Your task to perform on an android device: add a label to a message in the gmail app Image 0: 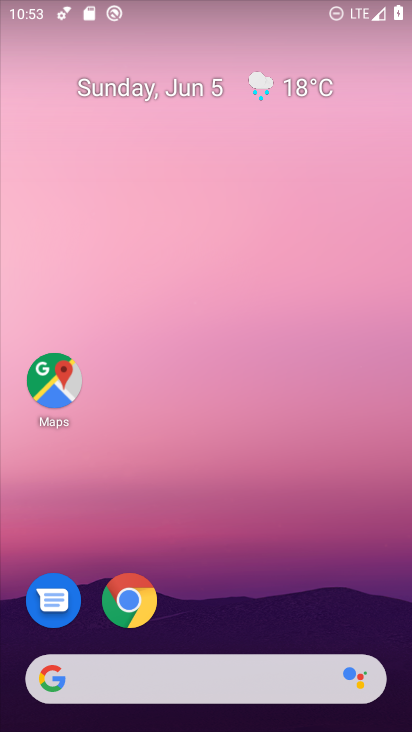
Step 0: drag from (185, 600) to (184, 217)
Your task to perform on an android device: add a label to a message in the gmail app Image 1: 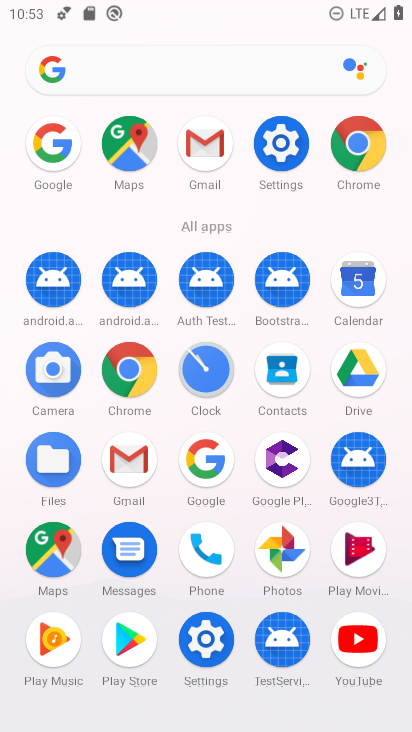
Step 1: click (184, 142)
Your task to perform on an android device: add a label to a message in the gmail app Image 2: 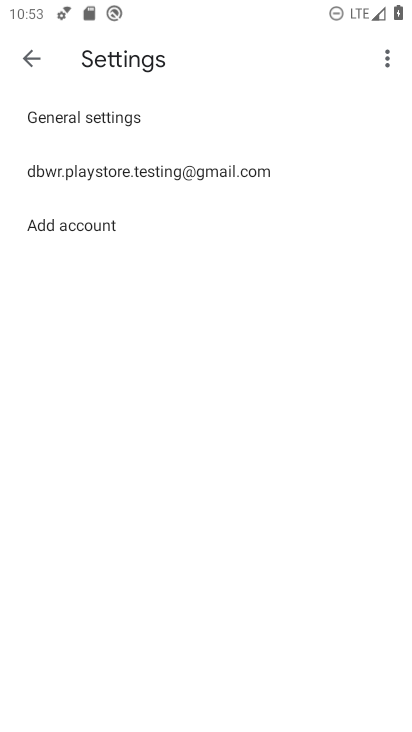
Step 2: click (22, 63)
Your task to perform on an android device: add a label to a message in the gmail app Image 3: 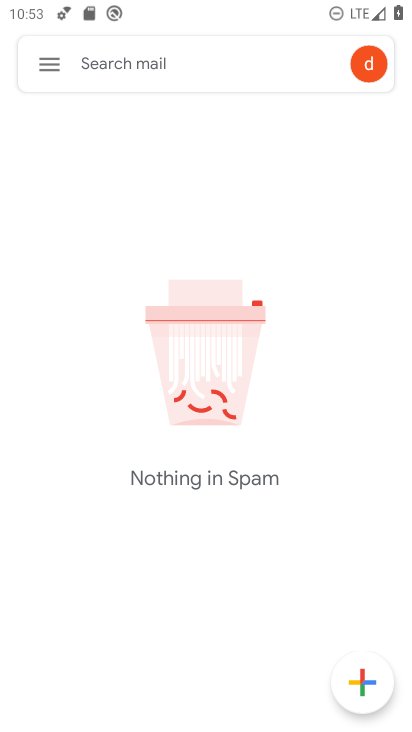
Step 3: click (52, 68)
Your task to perform on an android device: add a label to a message in the gmail app Image 4: 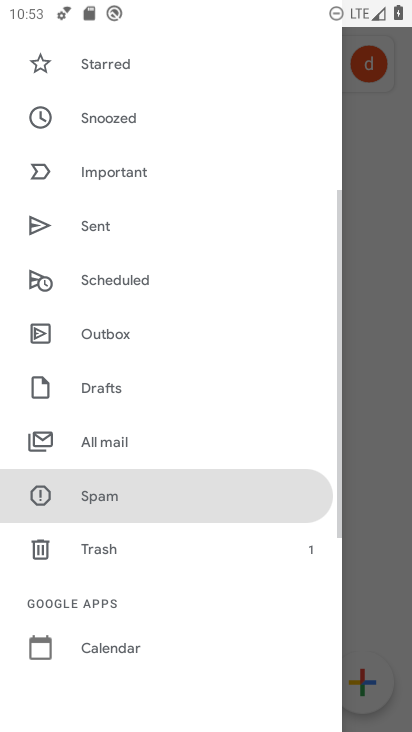
Step 4: click (95, 450)
Your task to perform on an android device: add a label to a message in the gmail app Image 5: 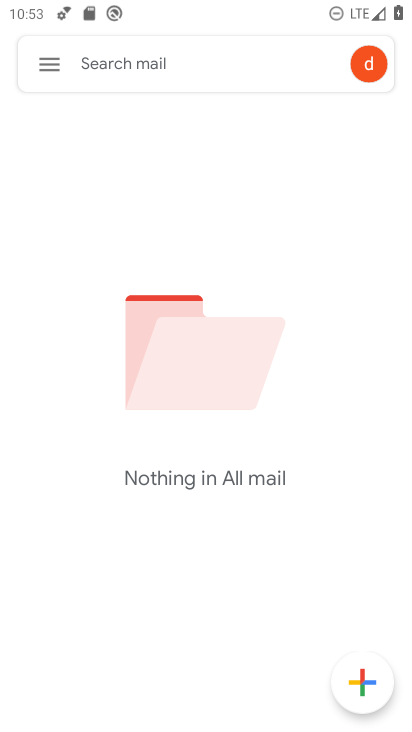
Step 5: task complete